Your task to perform on an android device: Go to Reddit.com Image 0: 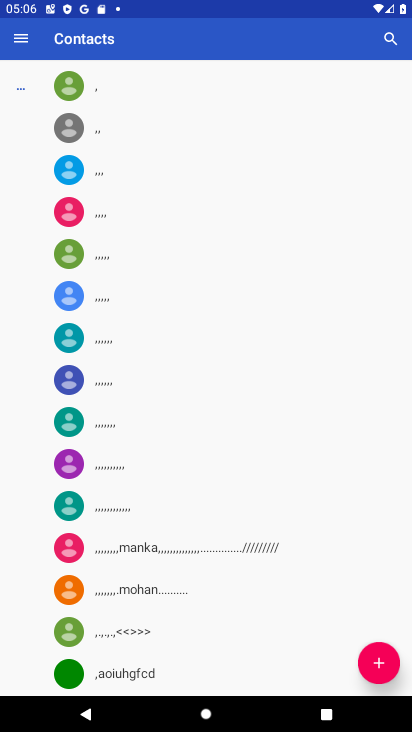
Step 0: press home button
Your task to perform on an android device: Go to Reddit.com Image 1: 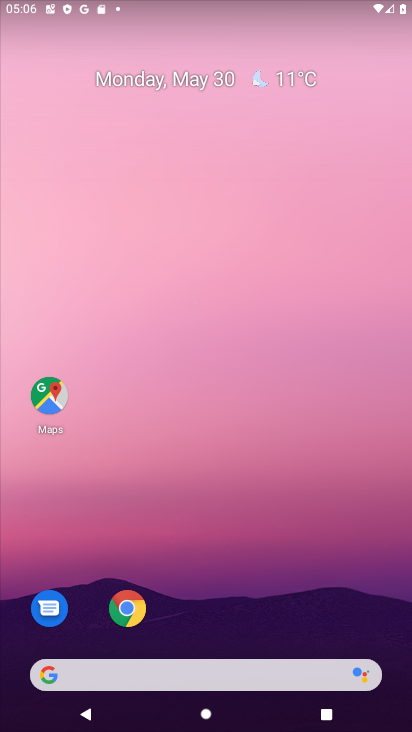
Step 1: drag from (148, 655) to (153, 261)
Your task to perform on an android device: Go to Reddit.com Image 2: 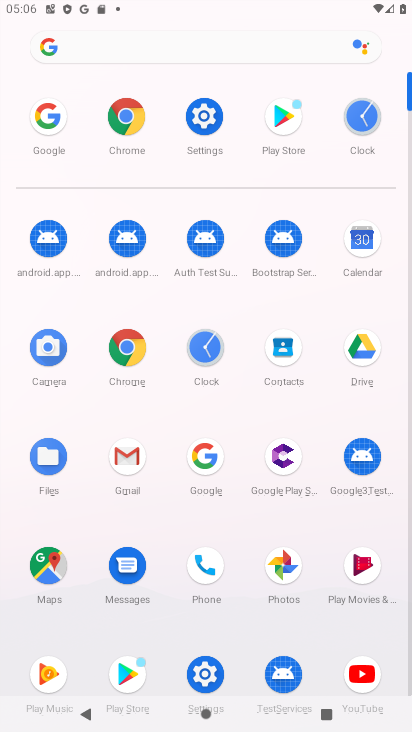
Step 2: click (52, 113)
Your task to perform on an android device: Go to Reddit.com Image 3: 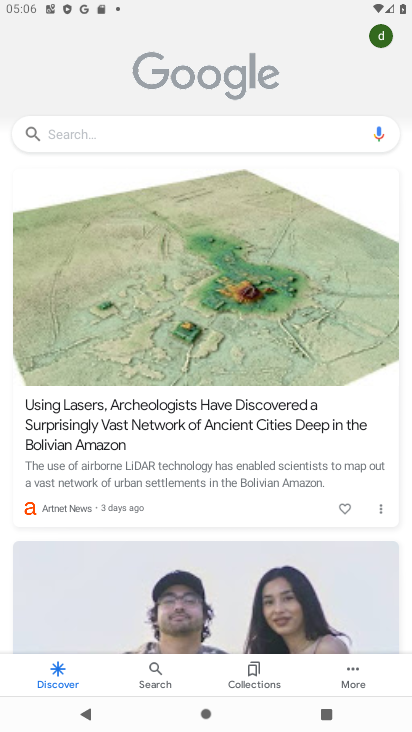
Step 3: click (92, 135)
Your task to perform on an android device: Go to Reddit.com Image 4: 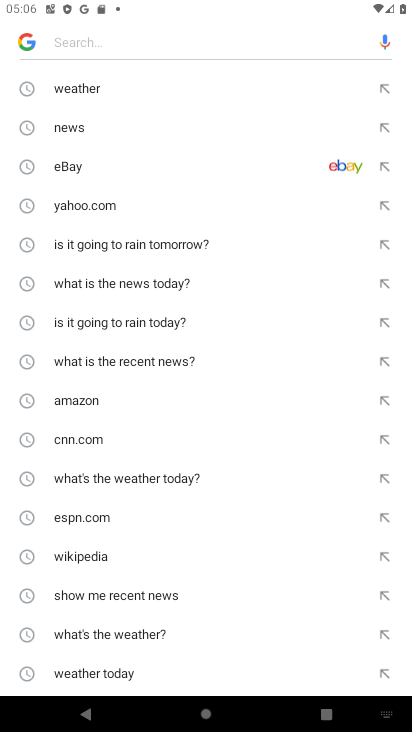
Step 4: drag from (102, 668) to (123, 296)
Your task to perform on an android device: Go to Reddit.com Image 5: 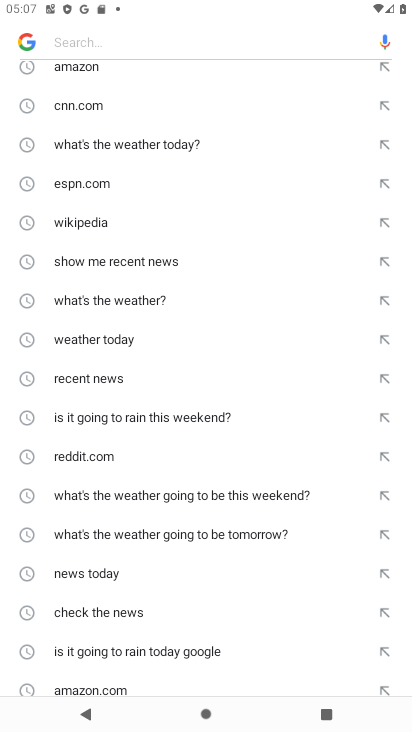
Step 5: click (102, 459)
Your task to perform on an android device: Go to Reddit.com Image 6: 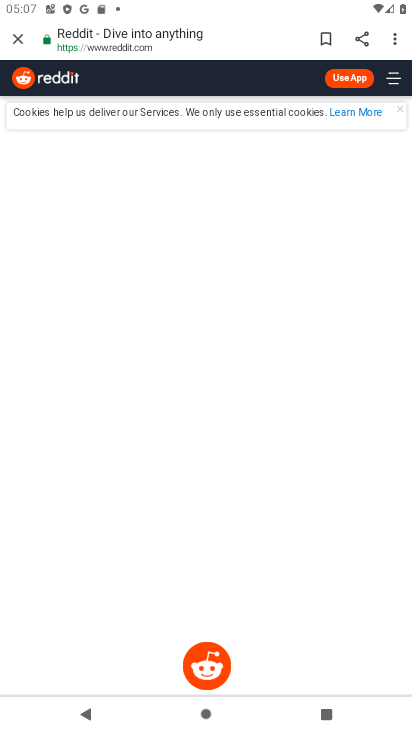
Step 6: task complete